Your task to perform on an android device: turn off sleep mode Image 0: 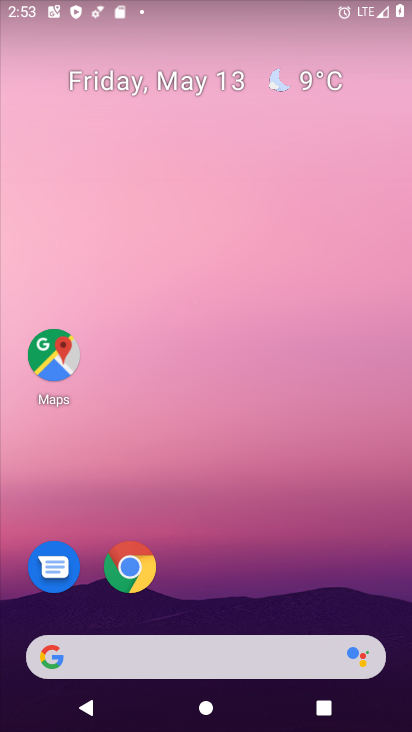
Step 0: drag from (244, 609) to (157, 0)
Your task to perform on an android device: turn off sleep mode Image 1: 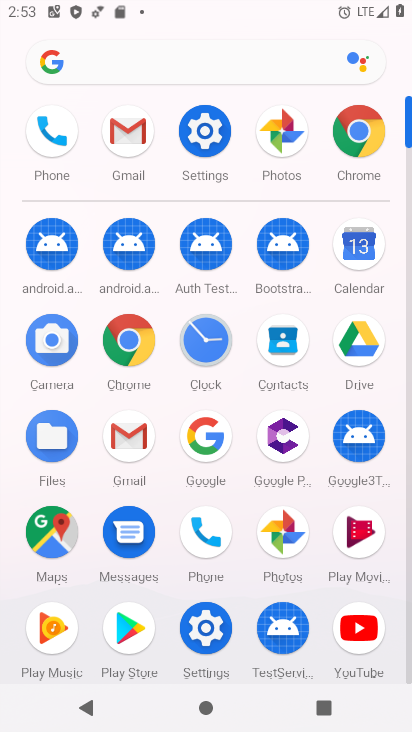
Step 1: click (206, 636)
Your task to perform on an android device: turn off sleep mode Image 2: 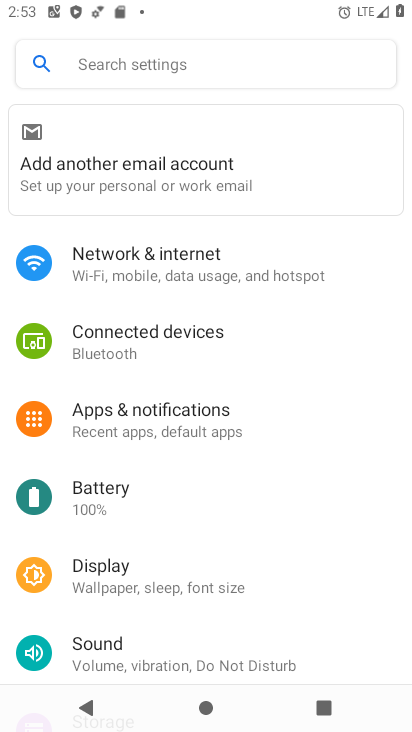
Step 2: click (217, 62)
Your task to perform on an android device: turn off sleep mode Image 3: 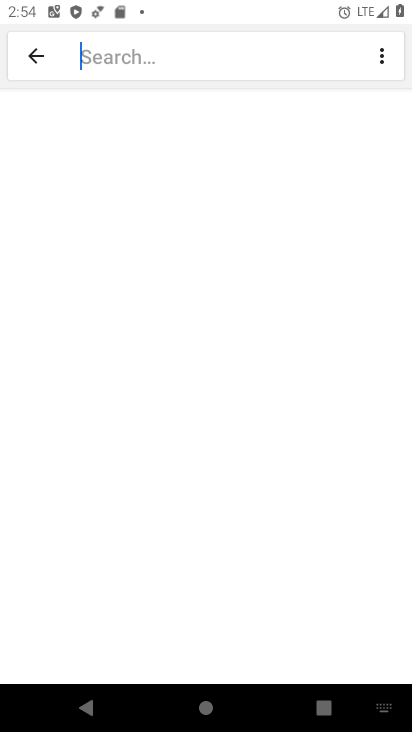
Step 3: type "sleep mode"
Your task to perform on an android device: turn off sleep mode Image 4: 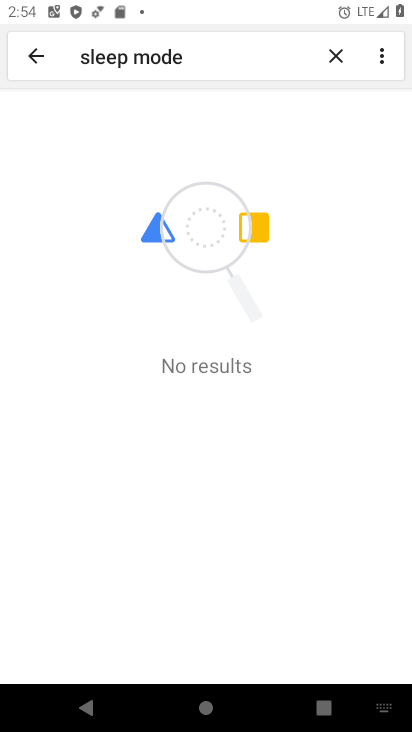
Step 4: task complete